Your task to perform on an android device: set default search engine in the chrome app Image 0: 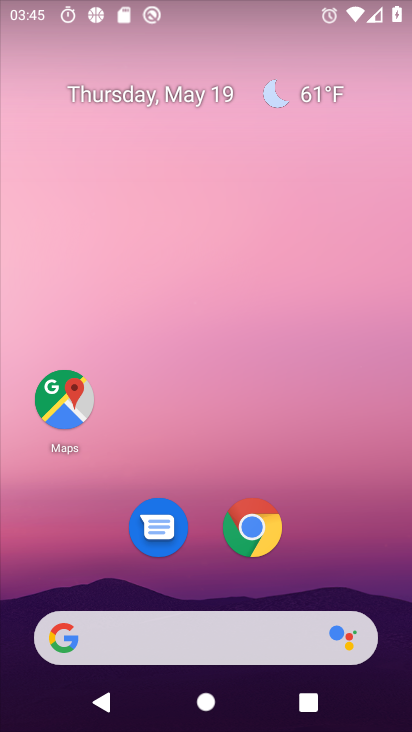
Step 0: click (260, 538)
Your task to perform on an android device: set default search engine in the chrome app Image 1: 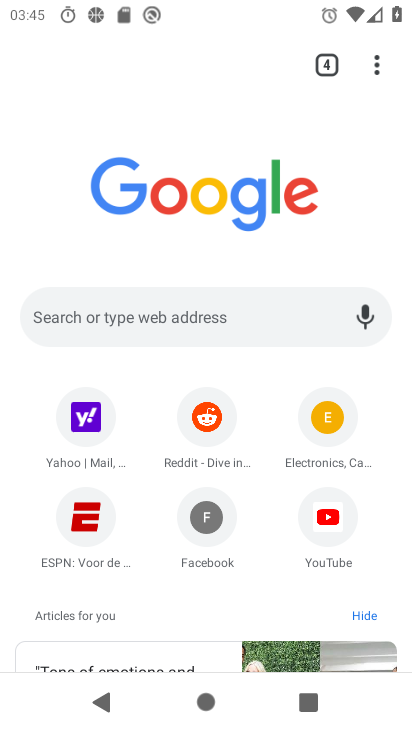
Step 1: drag from (381, 58) to (167, 547)
Your task to perform on an android device: set default search engine in the chrome app Image 2: 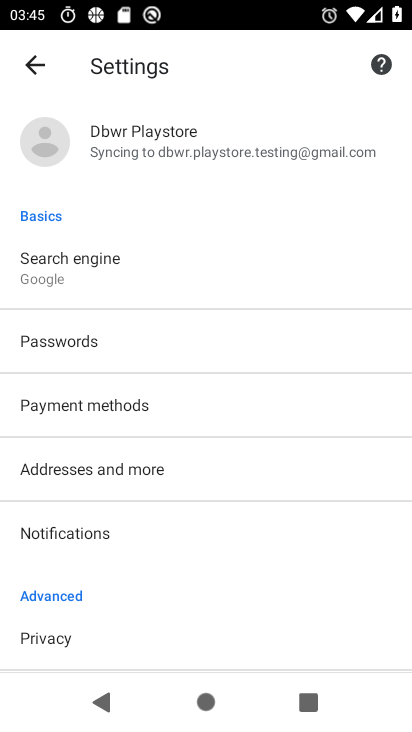
Step 2: click (64, 243)
Your task to perform on an android device: set default search engine in the chrome app Image 3: 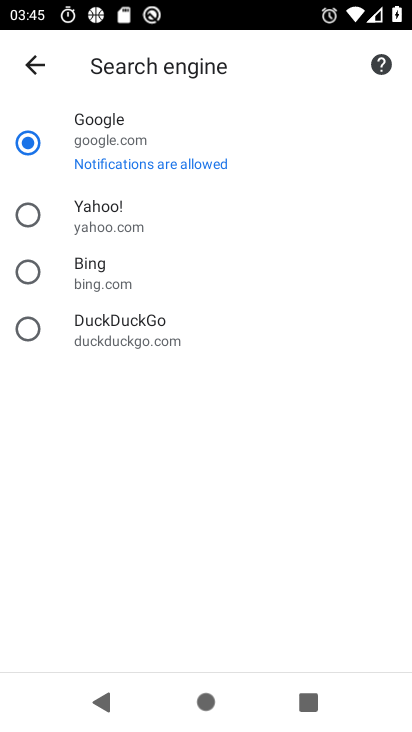
Step 3: click (40, 220)
Your task to perform on an android device: set default search engine in the chrome app Image 4: 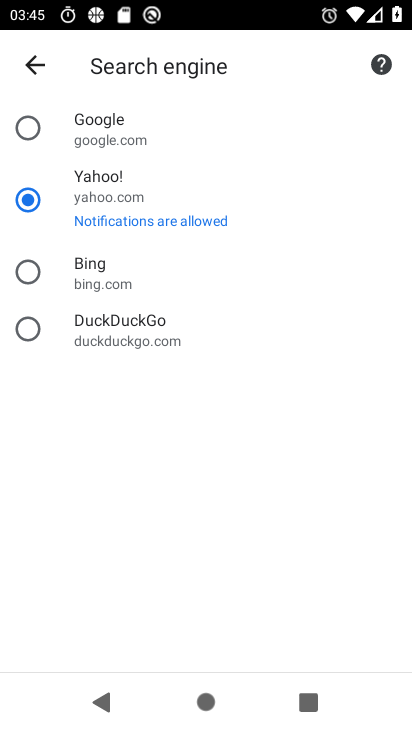
Step 4: task complete